Your task to perform on an android device: Go to sound settings Image 0: 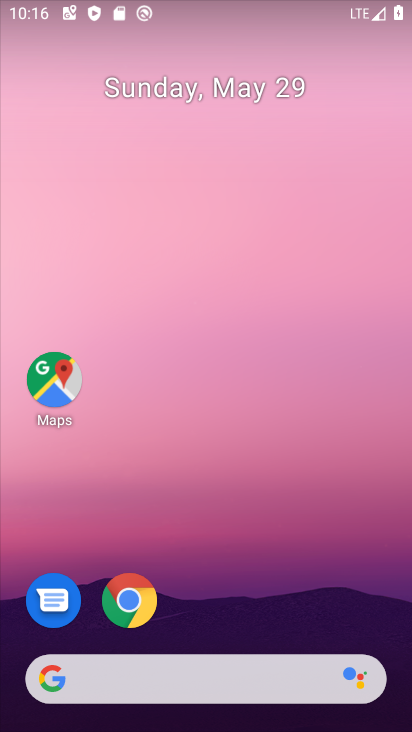
Step 0: drag from (262, 600) to (113, 91)
Your task to perform on an android device: Go to sound settings Image 1: 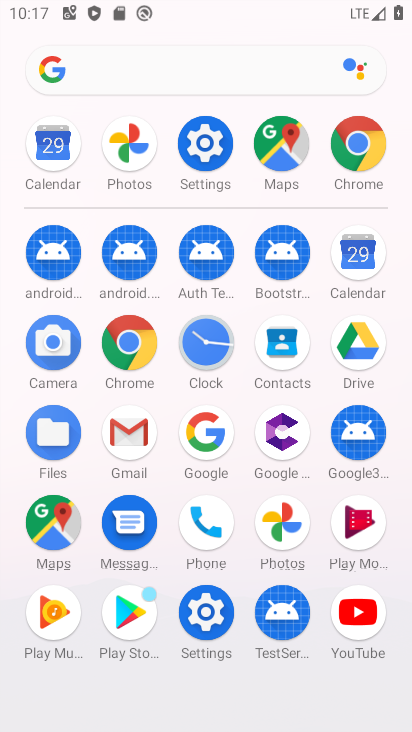
Step 1: drag from (113, 91) to (119, 55)
Your task to perform on an android device: Go to sound settings Image 2: 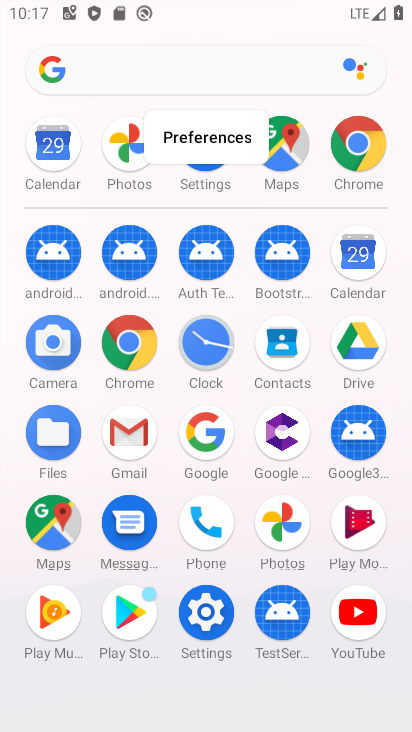
Step 2: click (221, 618)
Your task to perform on an android device: Go to sound settings Image 3: 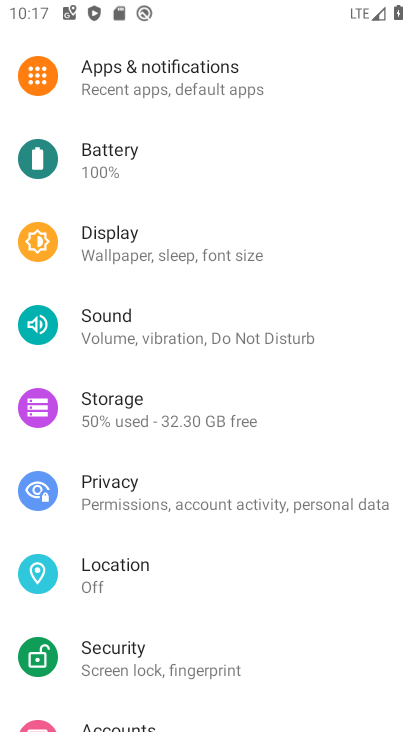
Step 3: click (162, 334)
Your task to perform on an android device: Go to sound settings Image 4: 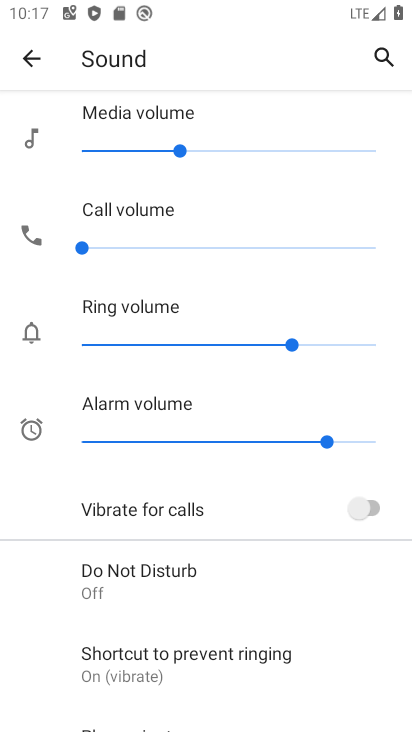
Step 4: task complete